Your task to perform on an android device: open app "Google Find My Device" (install if not already installed) Image 0: 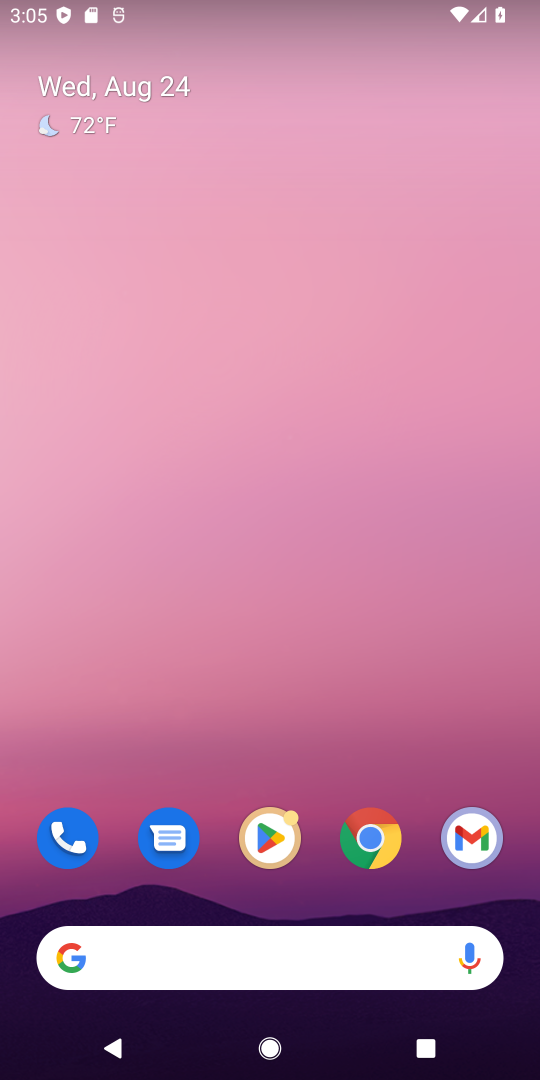
Step 0: press home button
Your task to perform on an android device: open app "Google Find My Device" (install if not already installed) Image 1: 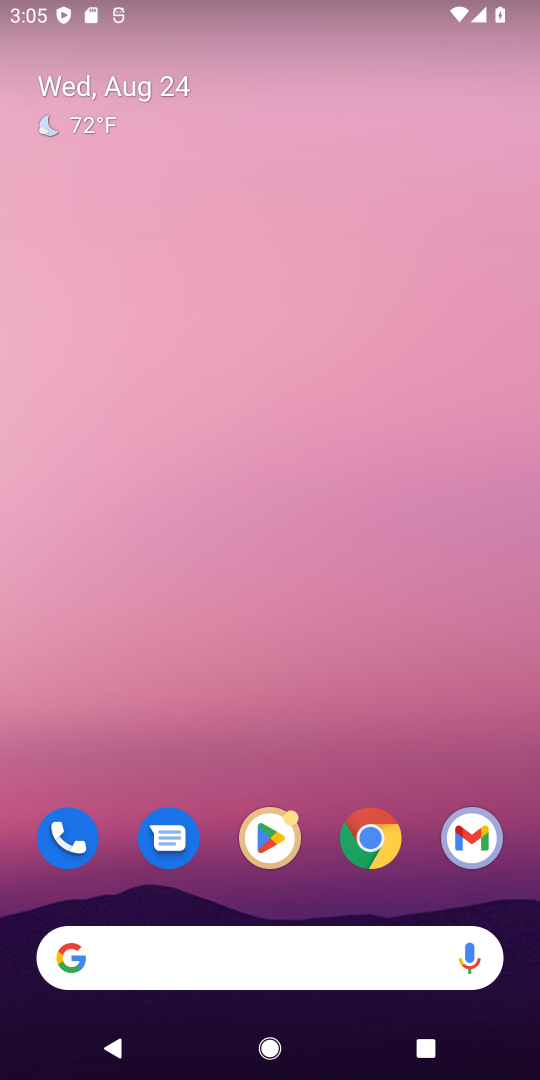
Step 1: drag from (432, 617) to (462, 147)
Your task to perform on an android device: open app "Google Find My Device" (install if not already installed) Image 2: 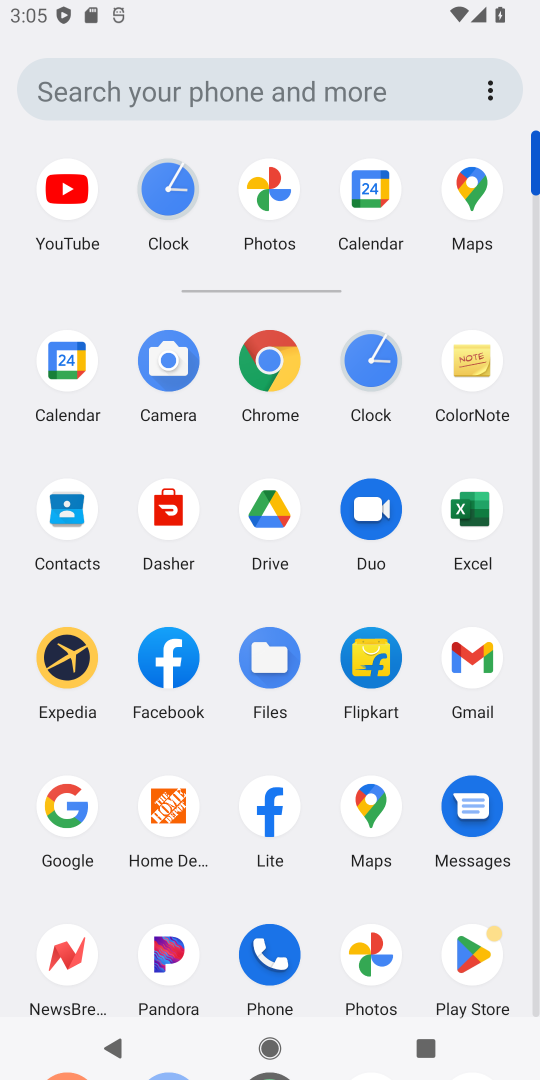
Step 2: click (481, 960)
Your task to perform on an android device: open app "Google Find My Device" (install if not already installed) Image 3: 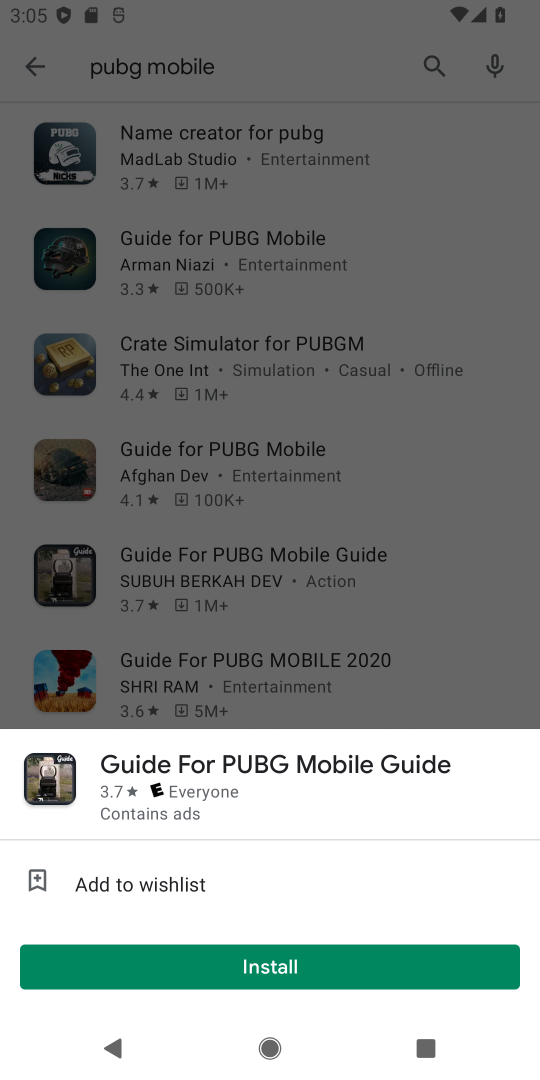
Step 3: press back button
Your task to perform on an android device: open app "Google Find My Device" (install if not already installed) Image 4: 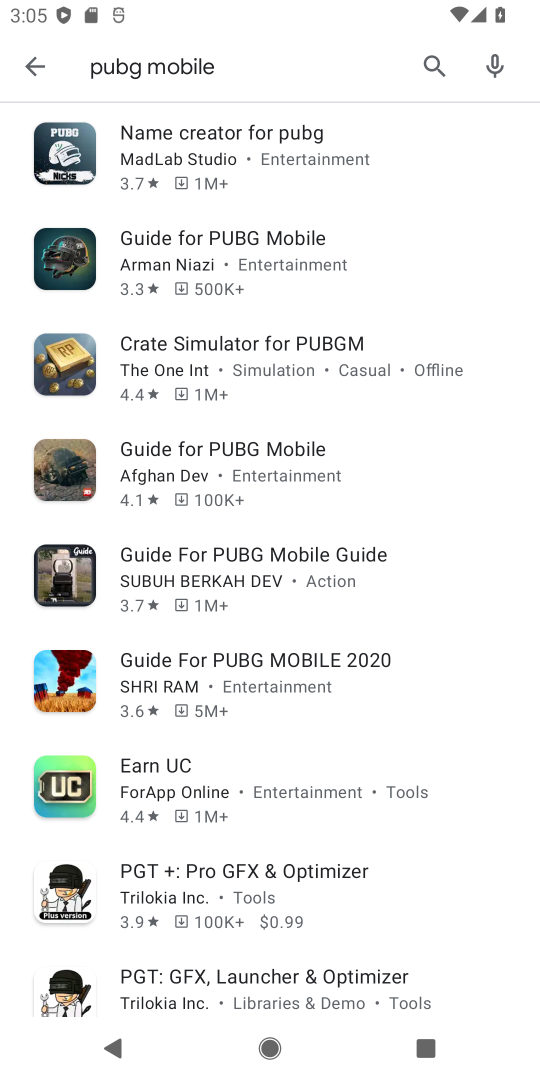
Step 4: press back button
Your task to perform on an android device: open app "Google Find My Device" (install if not already installed) Image 5: 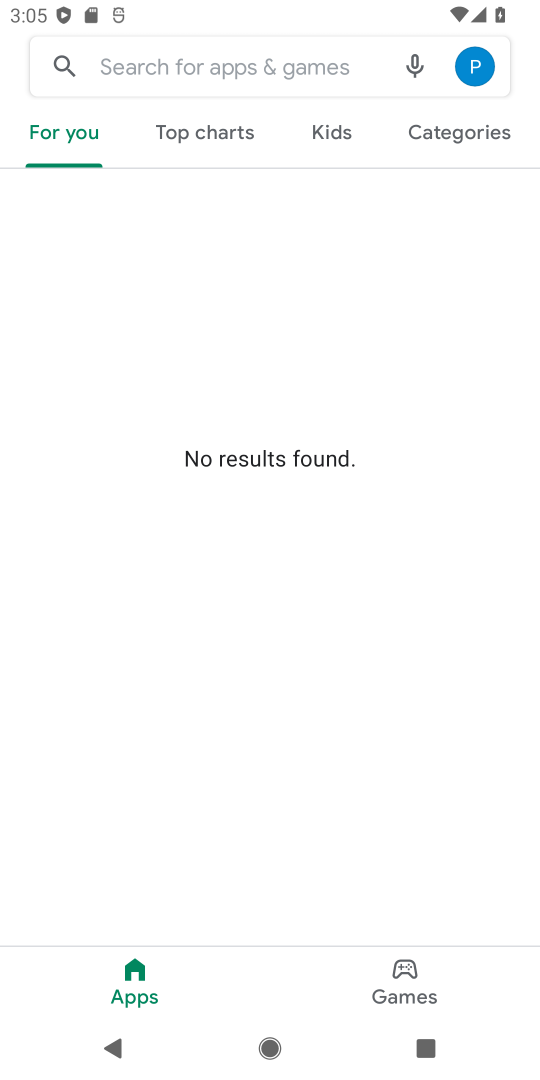
Step 5: click (332, 68)
Your task to perform on an android device: open app "Google Find My Device" (install if not already installed) Image 6: 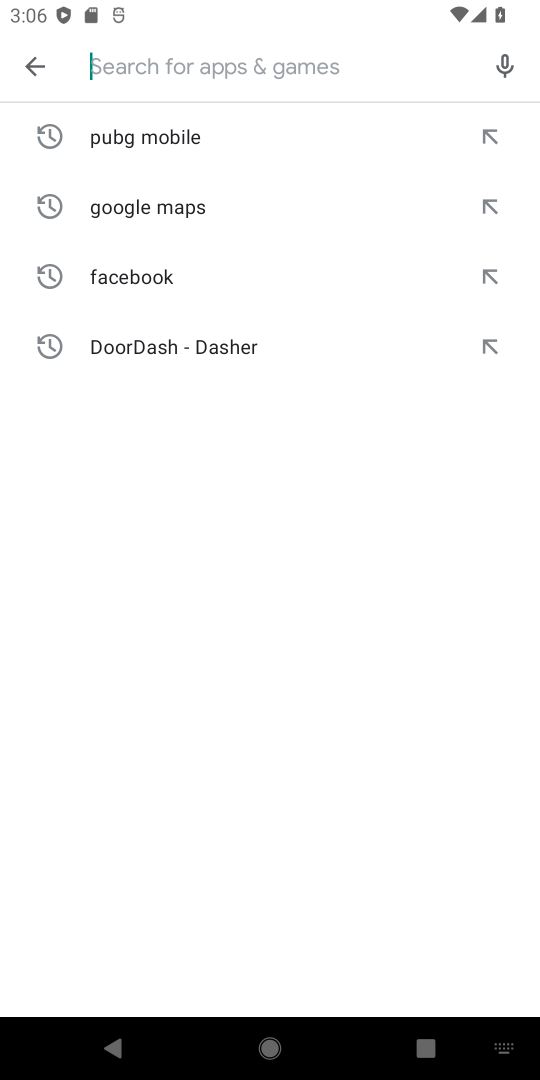
Step 6: type "google find my device"
Your task to perform on an android device: open app "Google Find My Device" (install if not already installed) Image 7: 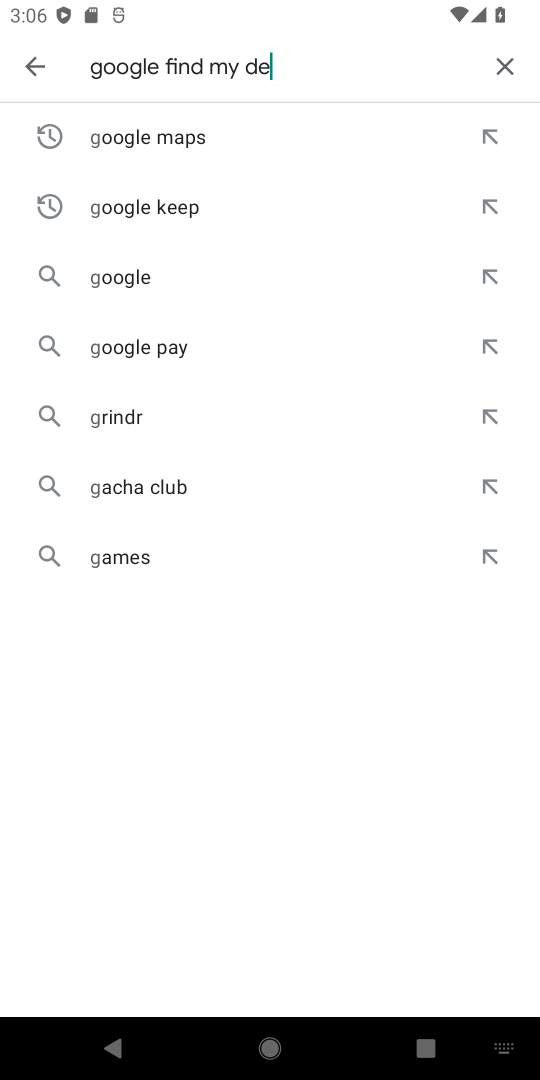
Step 7: press enter
Your task to perform on an android device: open app "Google Find My Device" (install if not already installed) Image 8: 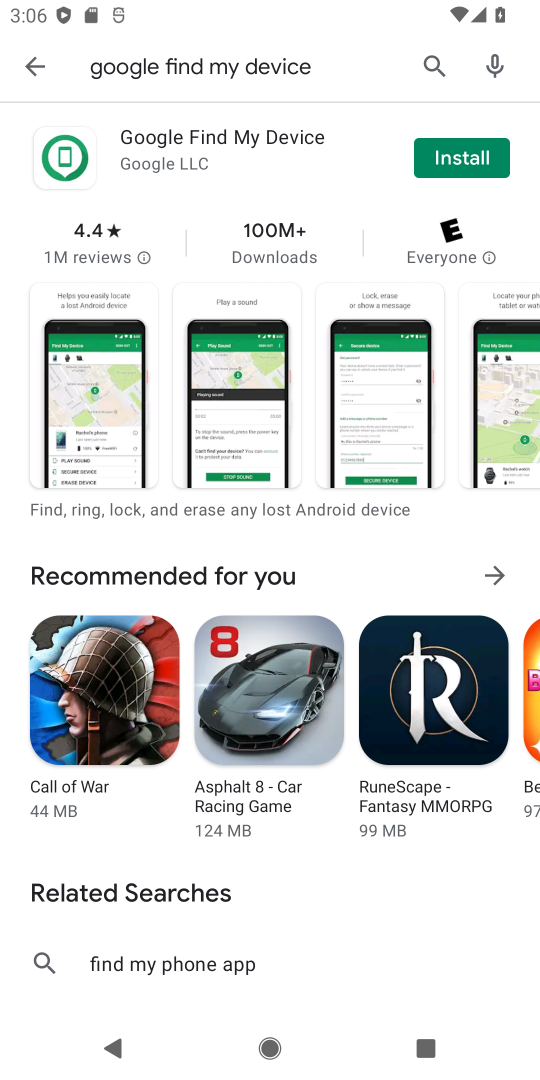
Step 8: click (466, 160)
Your task to perform on an android device: open app "Google Find My Device" (install if not already installed) Image 9: 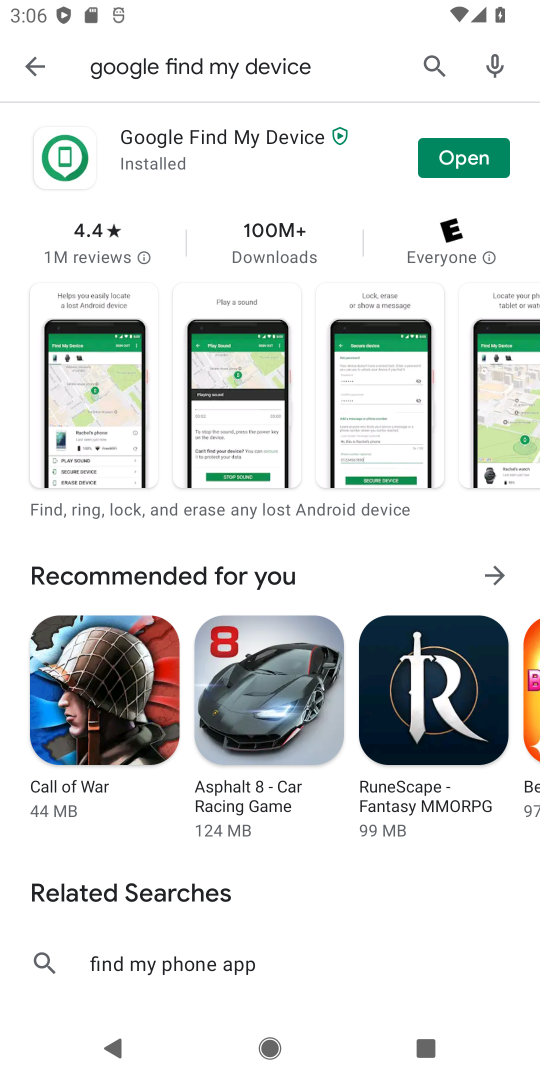
Step 9: click (462, 151)
Your task to perform on an android device: open app "Google Find My Device" (install if not already installed) Image 10: 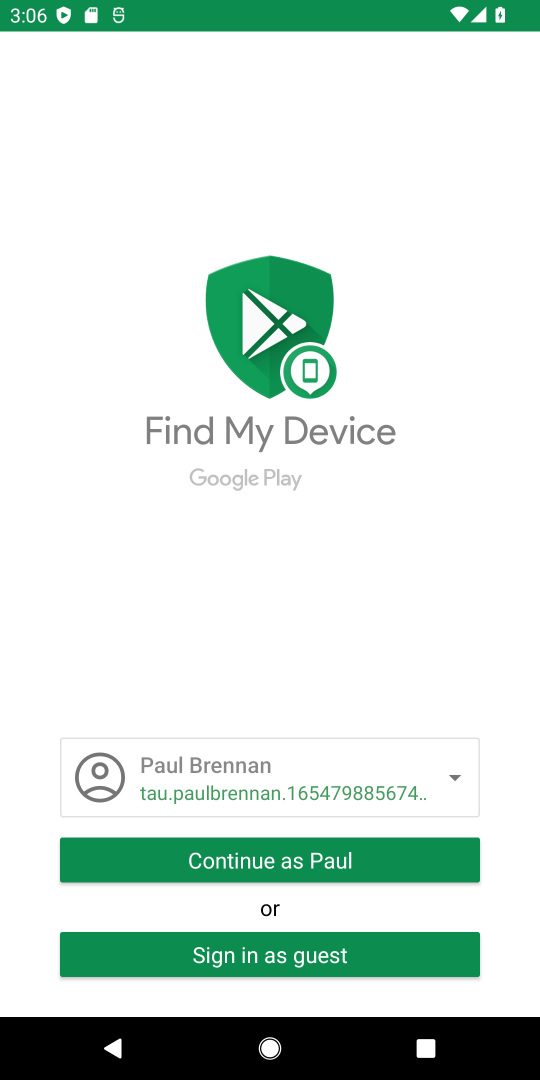
Step 10: task complete